Your task to perform on an android device: What's on my calendar tomorrow? Image 0: 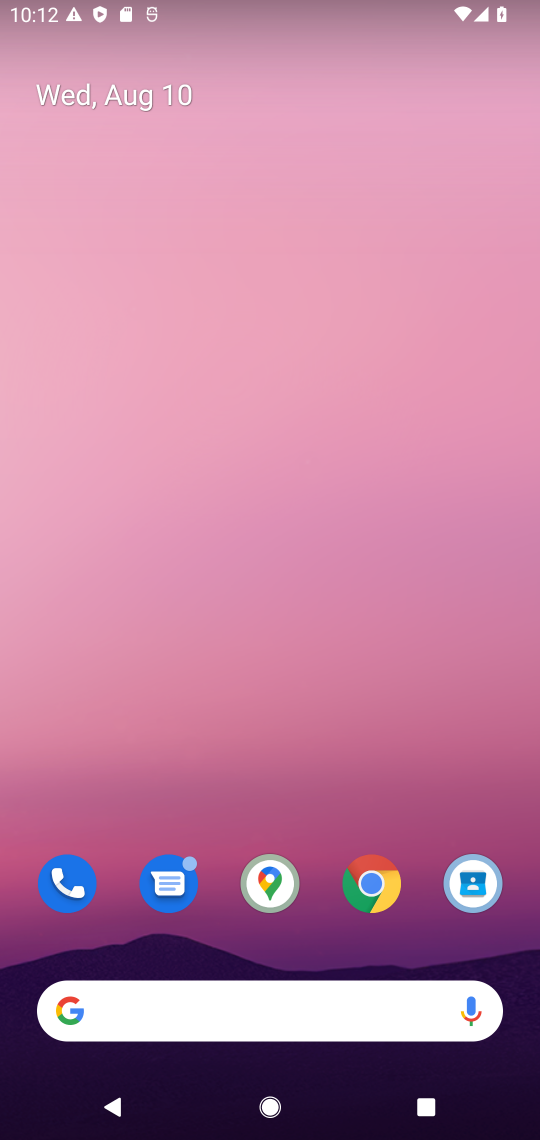
Step 0: press home button
Your task to perform on an android device: What's on my calendar tomorrow? Image 1: 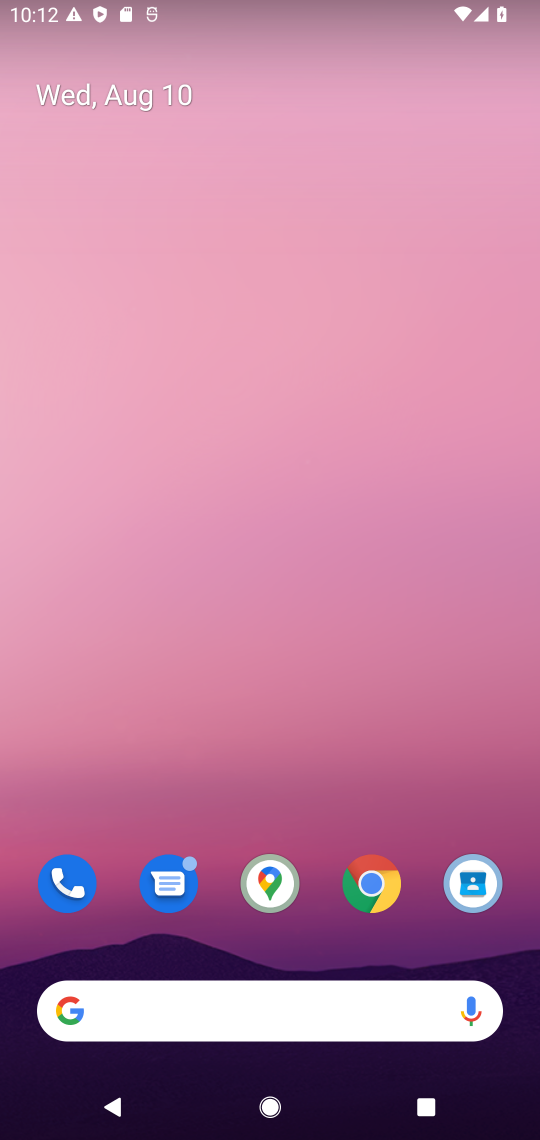
Step 1: drag from (306, 783) to (293, 84)
Your task to perform on an android device: What's on my calendar tomorrow? Image 2: 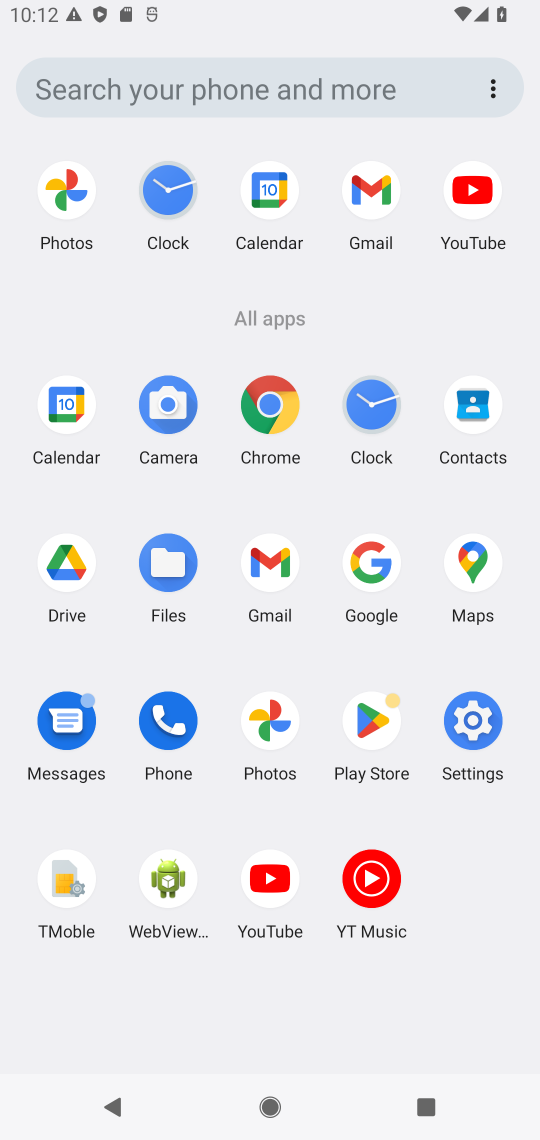
Step 2: click (64, 411)
Your task to perform on an android device: What's on my calendar tomorrow? Image 3: 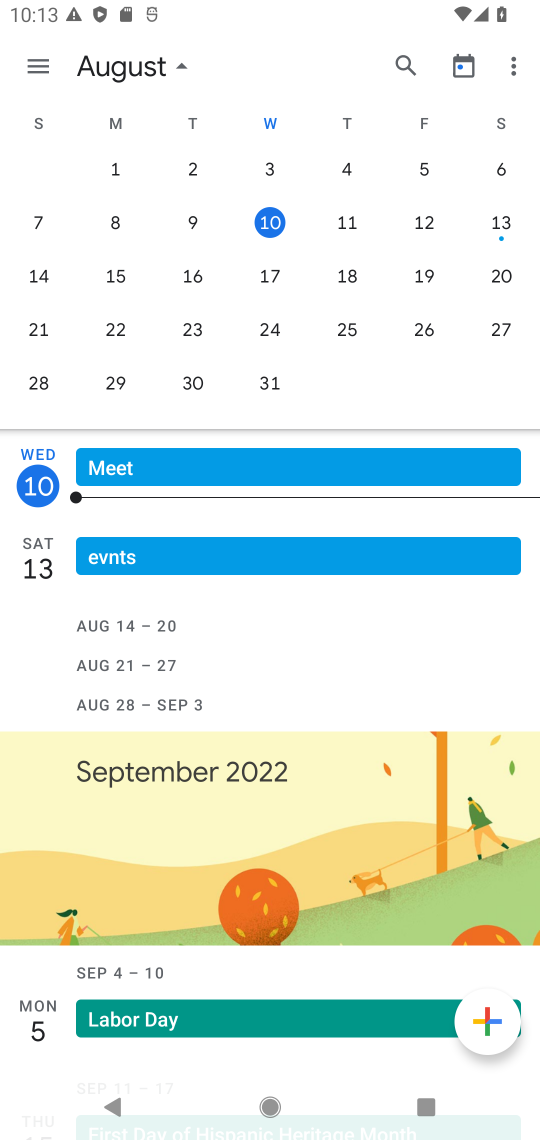
Step 3: click (345, 212)
Your task to perform on an android device: What's on my calendar tomorrow? Image 4: 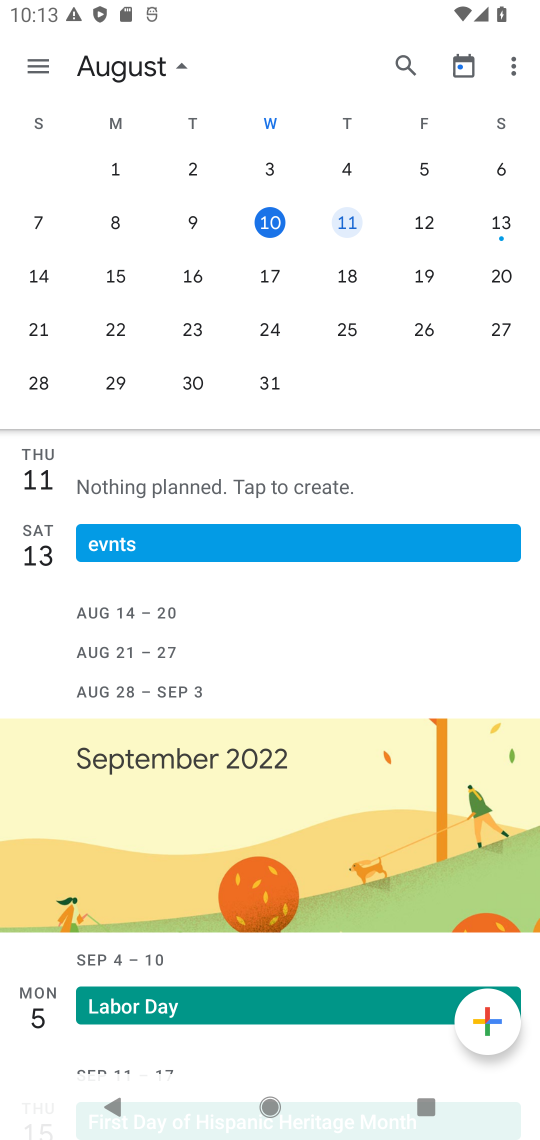
Step 4: task complete